Your task to perform on an android device: check battery use Image 0: 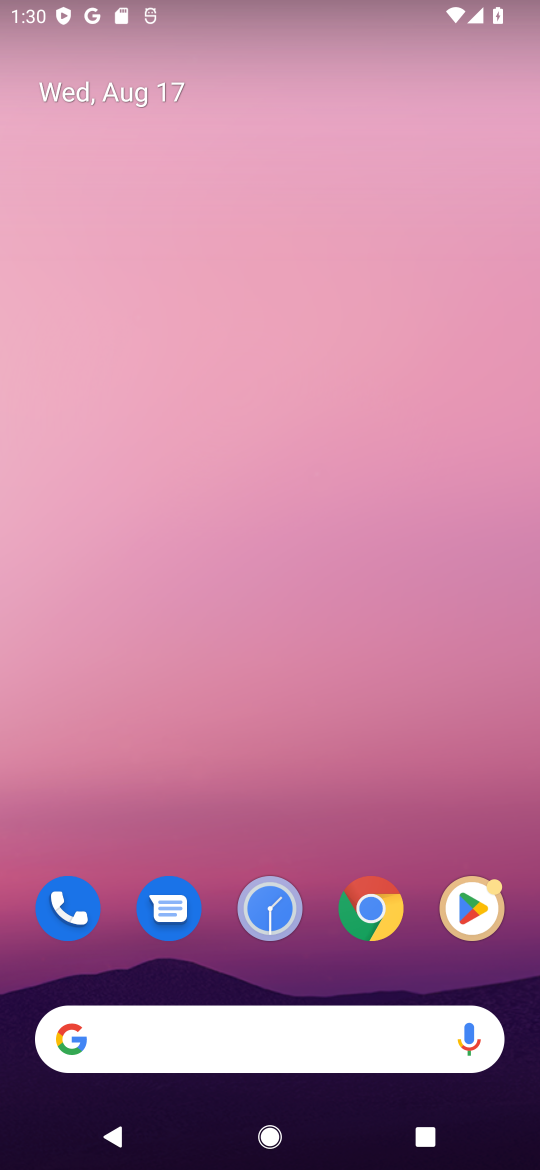
Step 0: press home button
Your task to perform on an android device: check battery use Image 1: 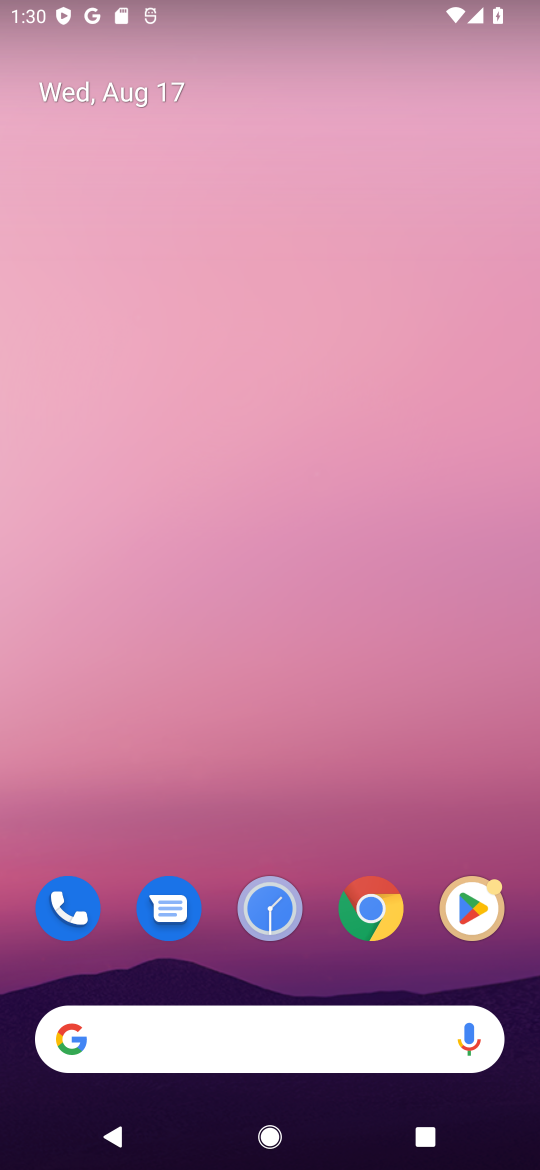
Step 1: drag from (376, 718) to (443, 0)
Your task to perform on an android device: check battery use Image 2: 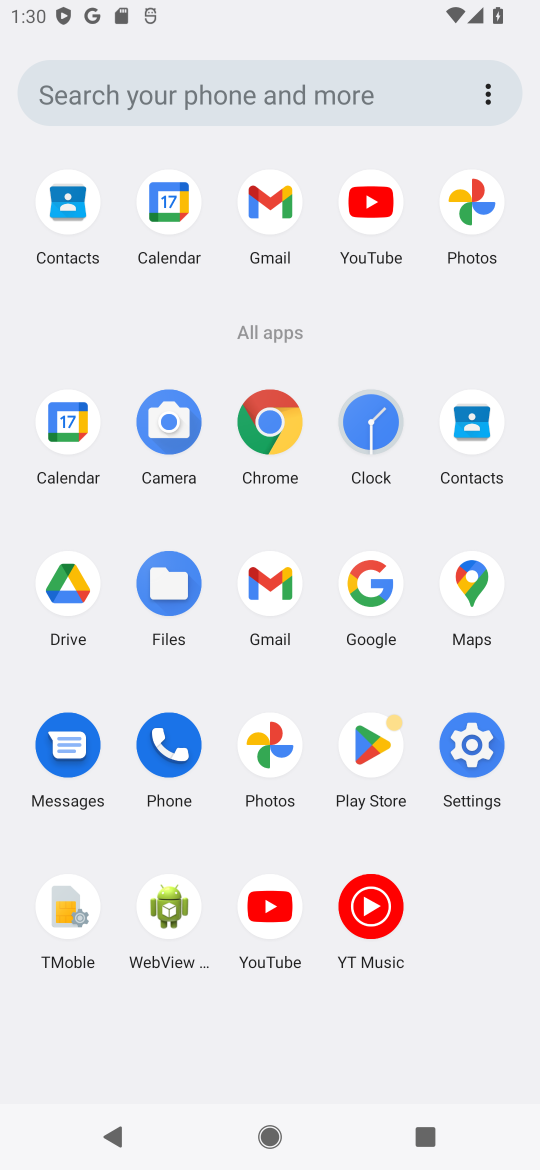
Step 2: click (475, 749)
Your task to perform on an android device: check battery use Image 3: 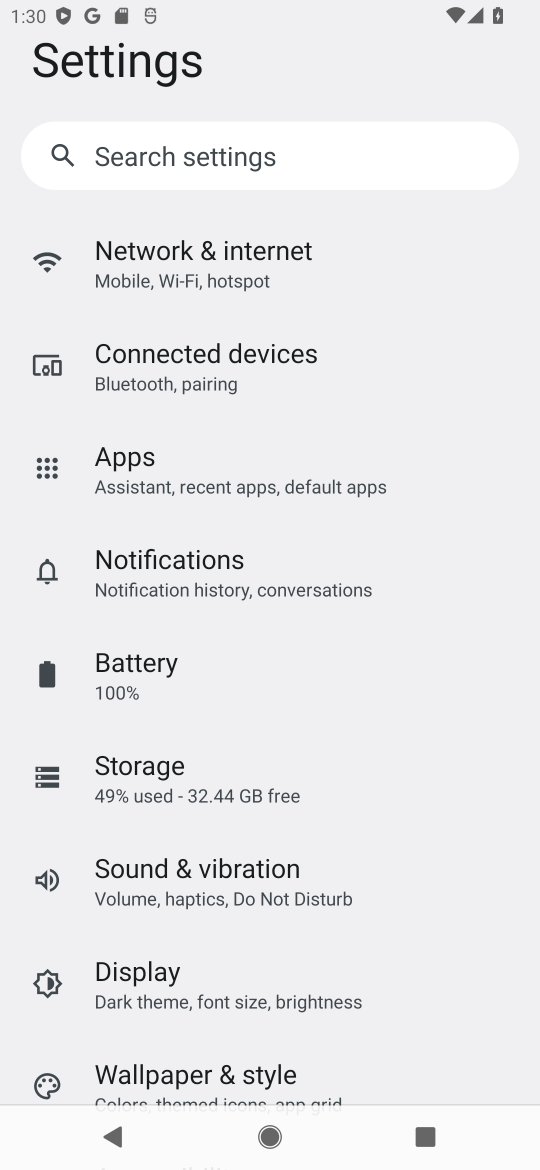
Step 3: click (133, 679)
Your task to perform on an android device: check battery use Image 4: 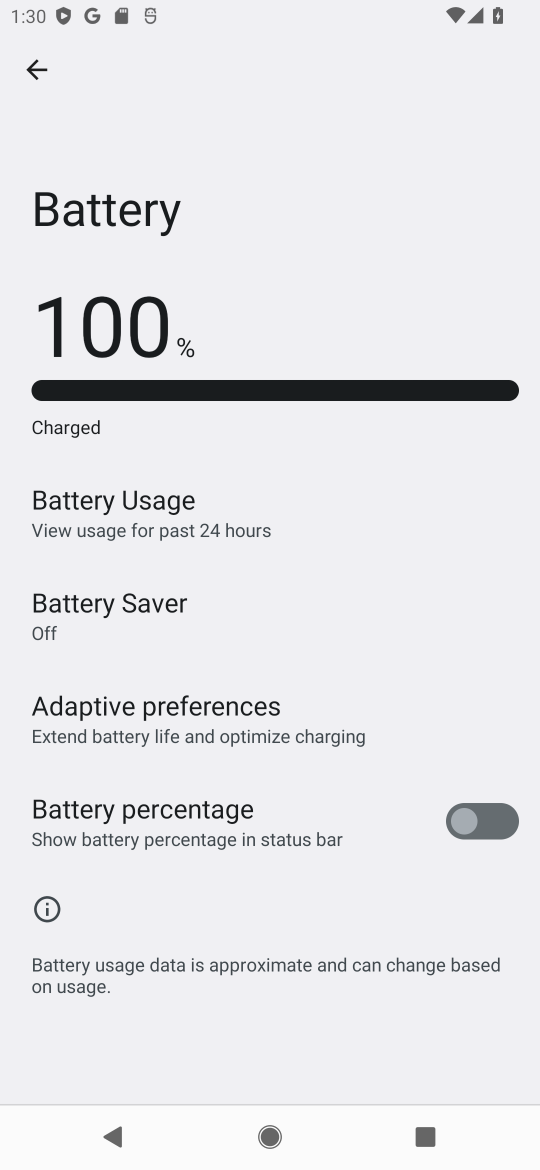
Step 4: click (111, 508)
Your task to perform on an android device: check battery use Image 5: 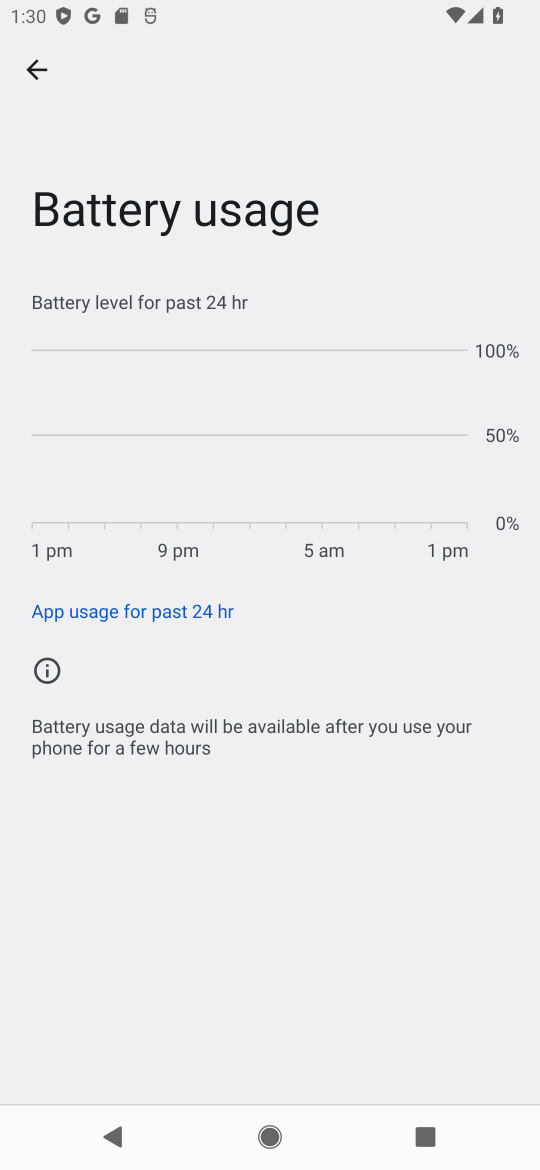
Step 5: task complete